Your task to perform on an android device: manage bookmarks in the chrome app Image 0: 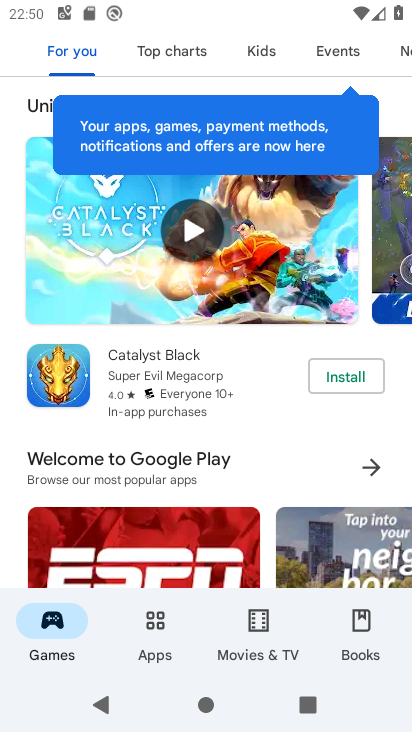
Step 0: press home button
Your task to perform on an android device: manage bookmarks in the chrome app Image 1: 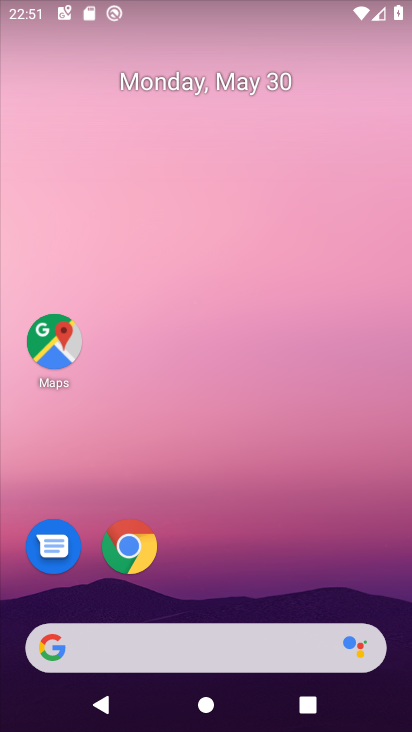
Step 1: drag from (202, 594) to (253, 112)
Your task to perform on an android device: manage bookmarks in the chrome app Image 2: 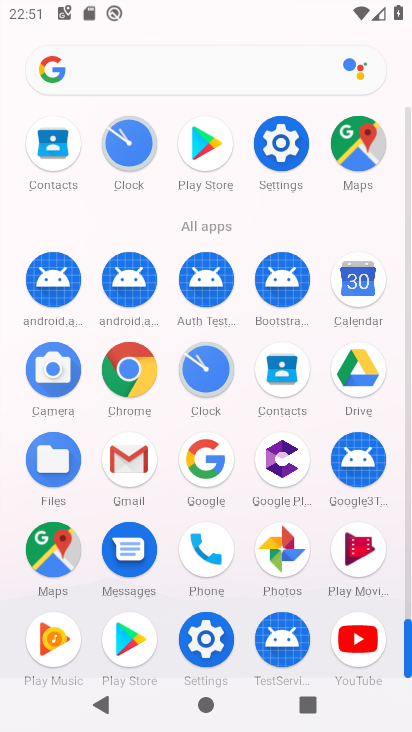
Step 2: click (128, 360)
Your task to perform on an android device: manage bookmarks in the chrome app Image 3: 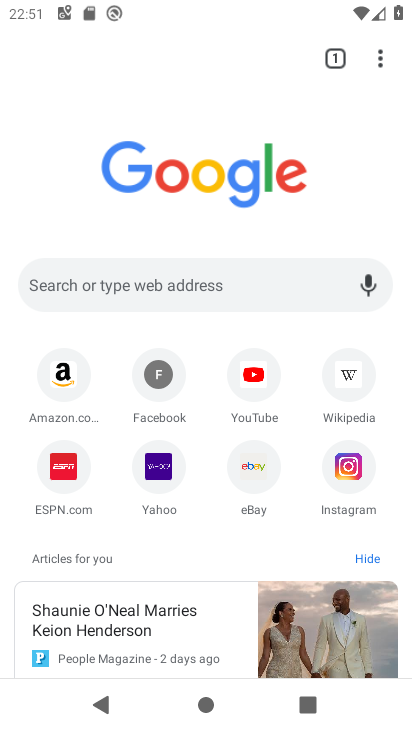
Step 3: click (379, 54)
Your task to perform on an android device: manage bookmarks in the chrome app Image 4: 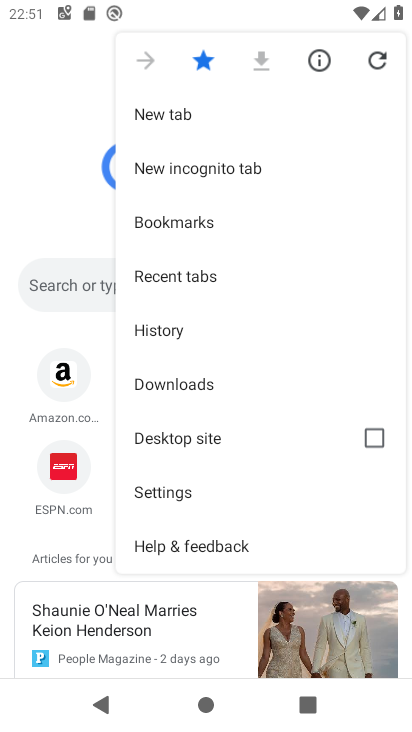
Step 4: click (192, 224)
Your task to perform on an android device: manage bookmarks in the chrome app Image 5: 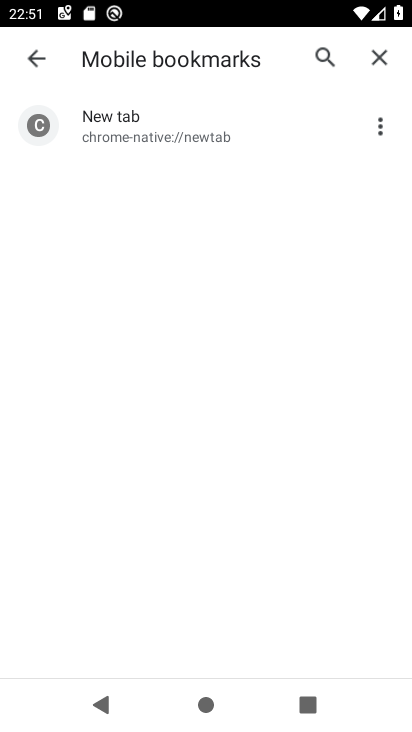
Step 5: click (376, 128)
Your task to perform on an android device: manage bookmarks in the chrome app Image 6: 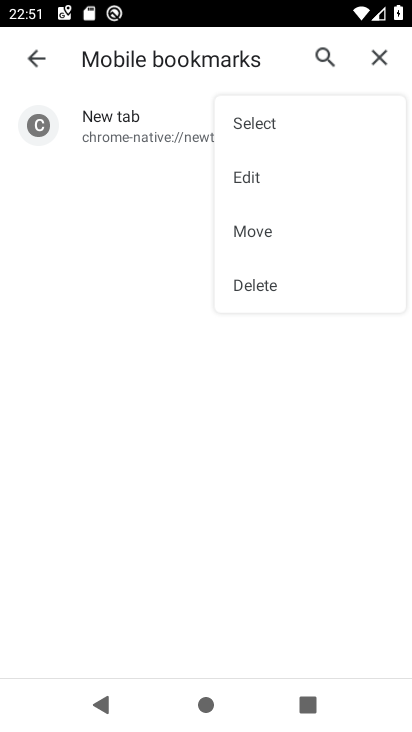
Step 6: click (257, 182)
Your task to perform on an android device: manage bookmarks in the chrome app Image 7: 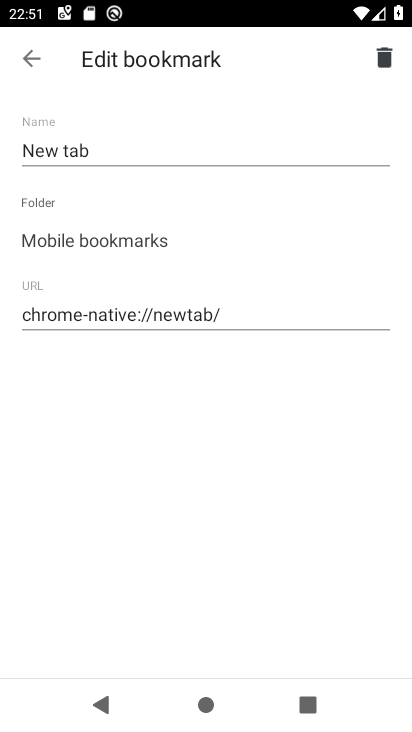
Step 7: click (182, 159)
Your task to perform on an android device: manage bookmarks in the chrome app Image 8: 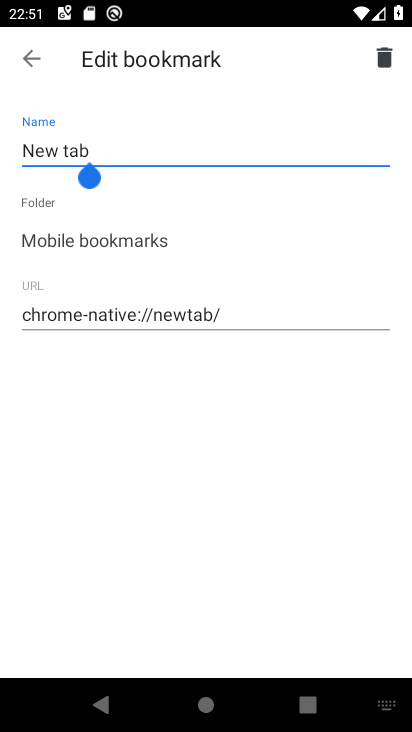
Step 8: click (38, 140)
Your task to perform on an android device: manage bookmarks in the chrome app Image 9: 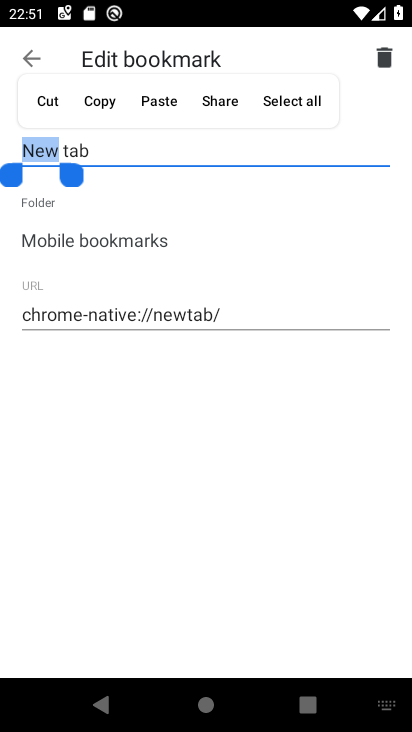
Step 9: type "fict"
Your task to perform on an android device: manage bookmarks in the chrome app Image 10: 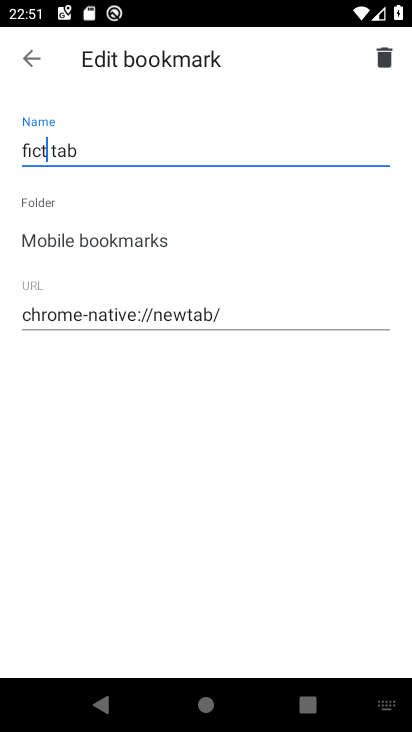
Step 10: click (382, 51)
Your task to perform on an android device: manage bookmarks in the chrome app Image 11: 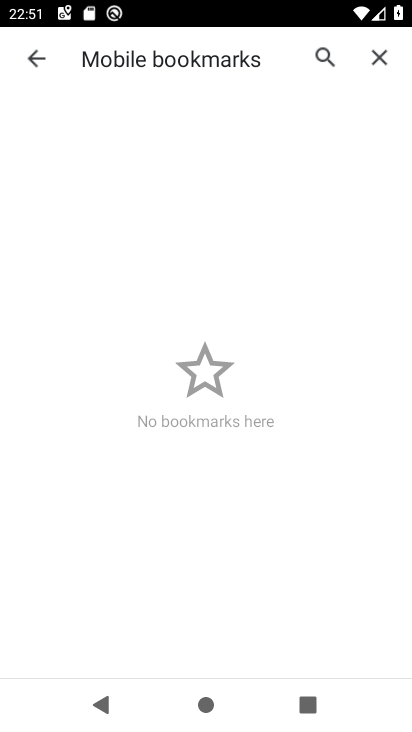
Step 11: task complete